Your task to perform on an android device: open sync settings in chrome Image 0: 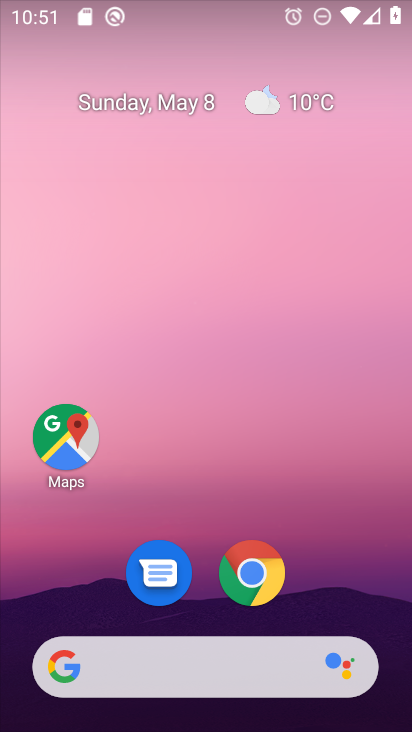
Step 0: click (411, 519)
Your task to perform on an android device: open sync settings in chrome Image 1: 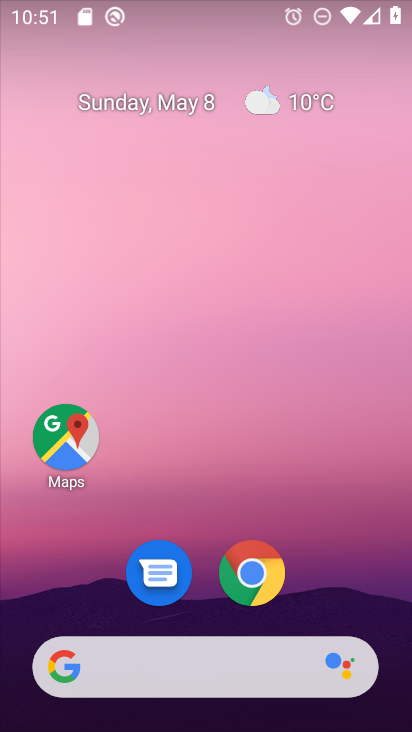
Step 1: click (268, 585)
Your task to perform on an android device: open sync settings in chrome Image 2: 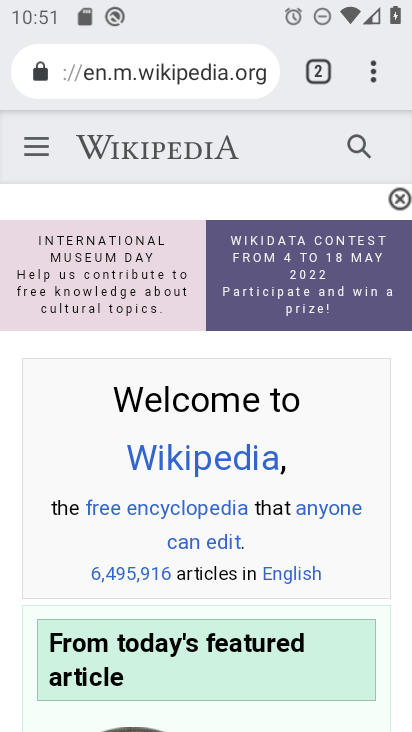
Step 2: drag from (368, 64) to (143, 561)
Your task to perform on an android device: open sync settings in chrome Image 3: 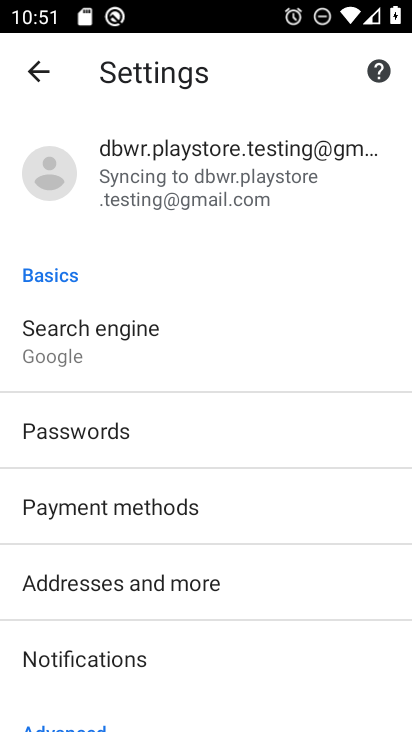
Step 3: click (91, 199)
Your task to perform on an android device: open sync settings in chrome Image 4: 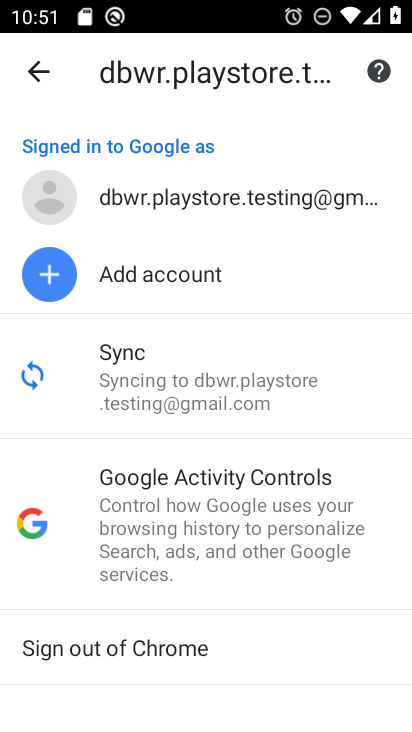
Step 4: click (118, 396)
Your task to perform on an android device: open sync settings in chrome Image 5: 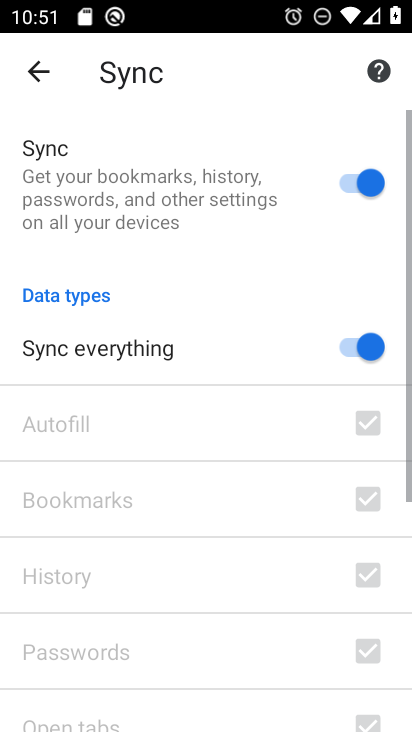
Step 5: task complete